Your task to perform on an android device: create a new album in the google photos Image 0: 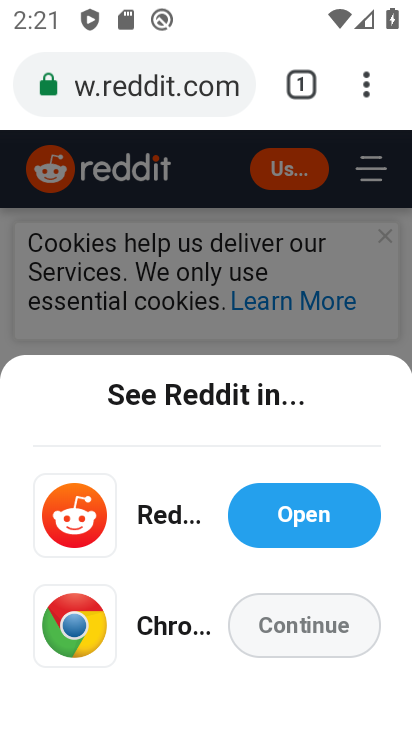
Step 0: press home button
Your task to perform on an android device: create a new album in the google photos Image 1: 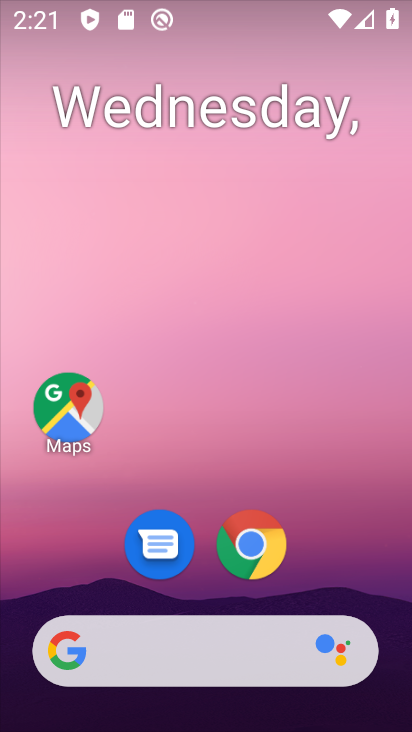
Step 1: drag from (367, 596) to (359, 196)
Your task to perform on an android device: create a new album in the google photos Image 2: 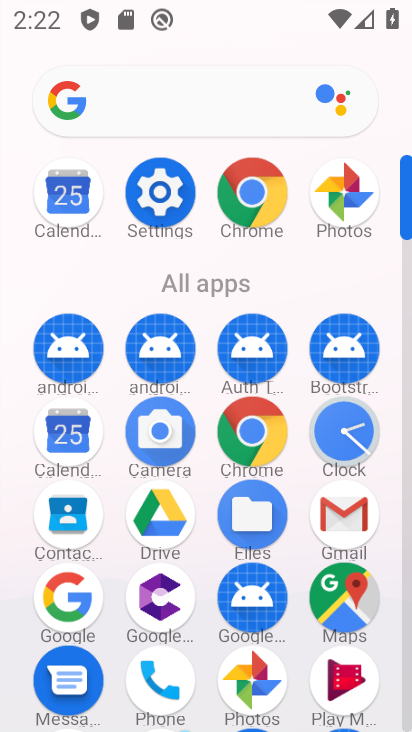
Step 2: click (259, 667)
Your task to perform on an android device: create a new album in the google photos Image 3: 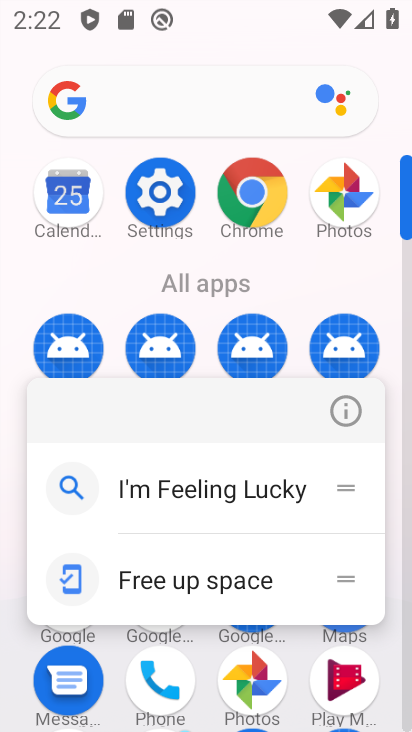
Step 3: click (254, 683)
Your task to perform on an android device: create a new album in the google photos Image 4: 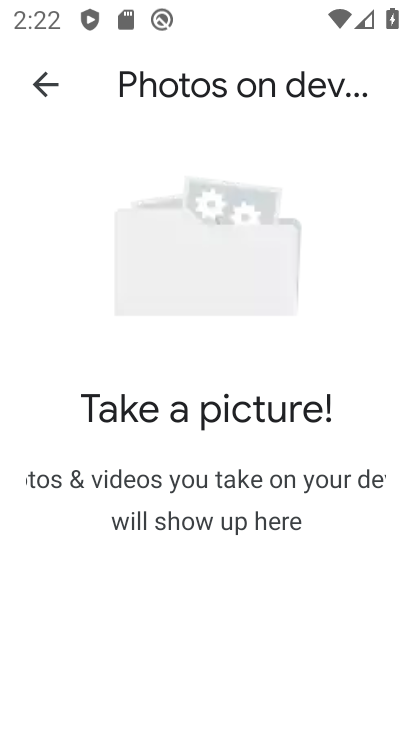
Step 4: click (67, 91)
Your task to perform on an android device: create a new album in the google photos Image 5: 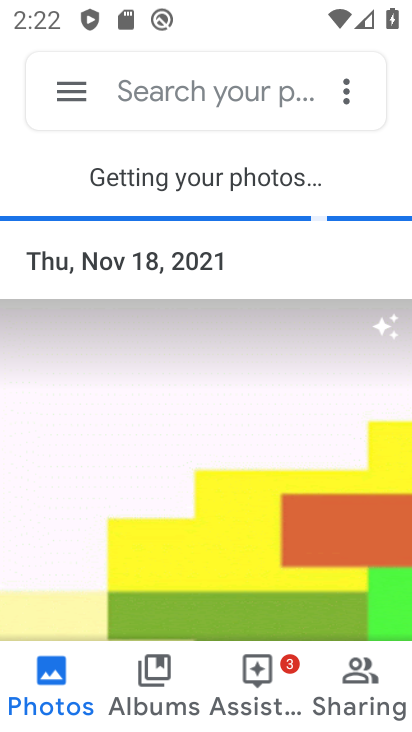
Step 5: click (116, 710)
Your task to perform on an android device: create a new album in the google photos Image 6: 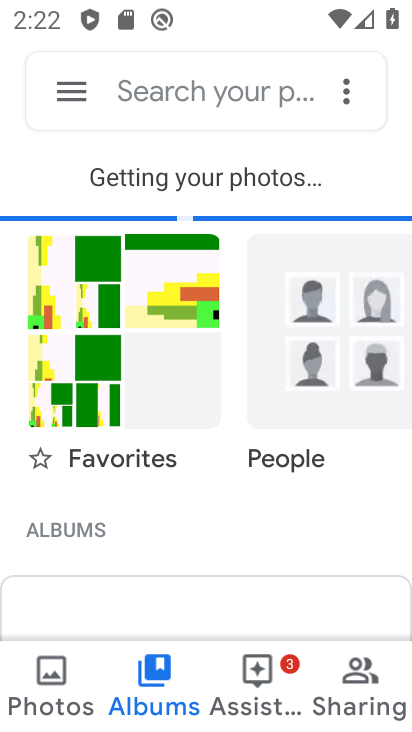
Step 6: drag from (179, 587) to (205, 284)
Your task to perform on an android device: create a new album in the google photos Image 7: 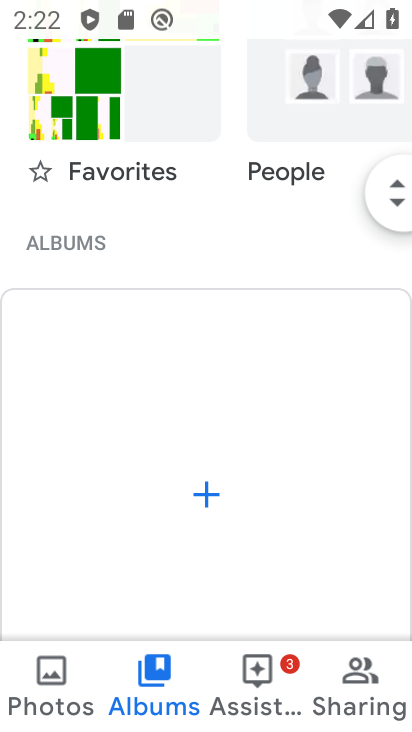
Step 7: click (211, 492)
Your task to perform on an android device: create a new album in the google photos Image 8: 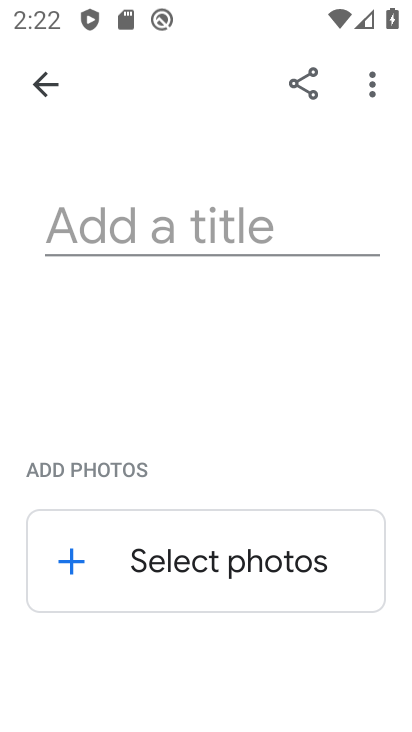
Step 8: click (170, 239)
Your task to perform on an android device: create a new album in the google photos Image 9: 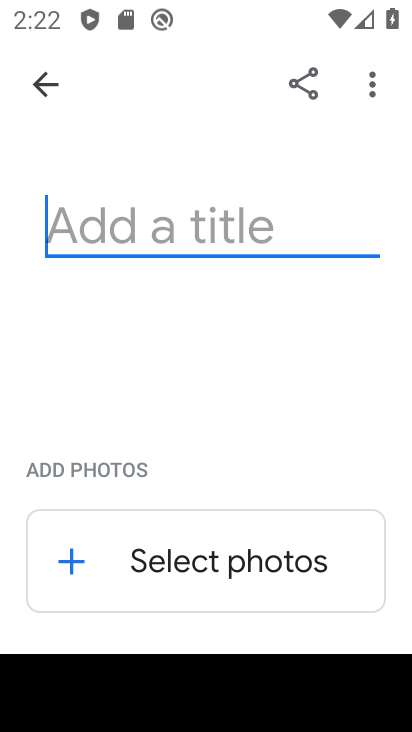
Step 9: type "isdokn"
Your task to perform on an android device: create a new album in the google photos Image 10: 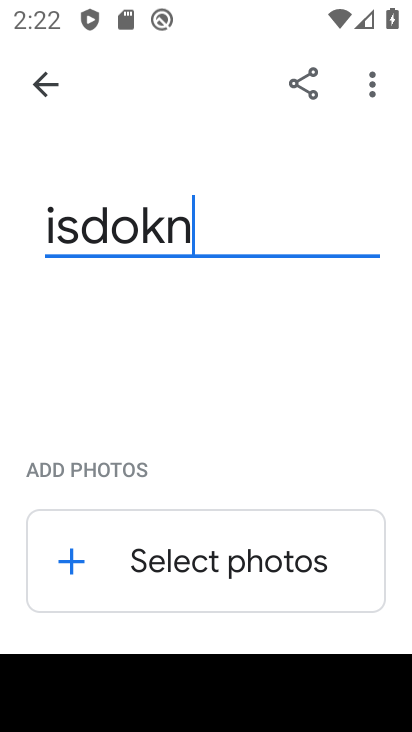
Step 10: click (68, 562)
Your task to perform on an android device: create a new album in the google photos Image 11: 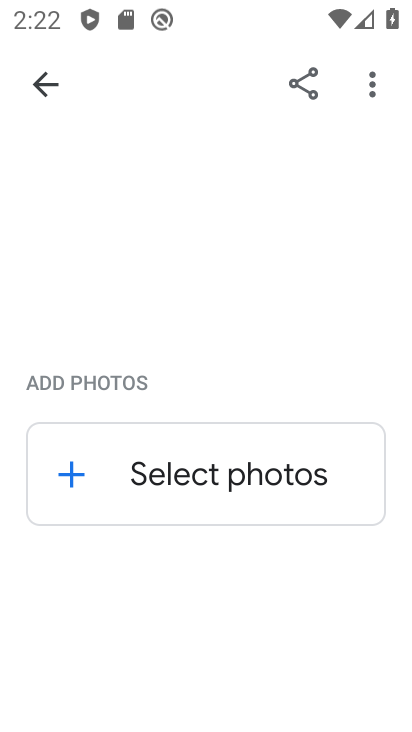
Step 11: click (66, 475)
Your task to perform on an android device: create a new album in the google photos Image 12: 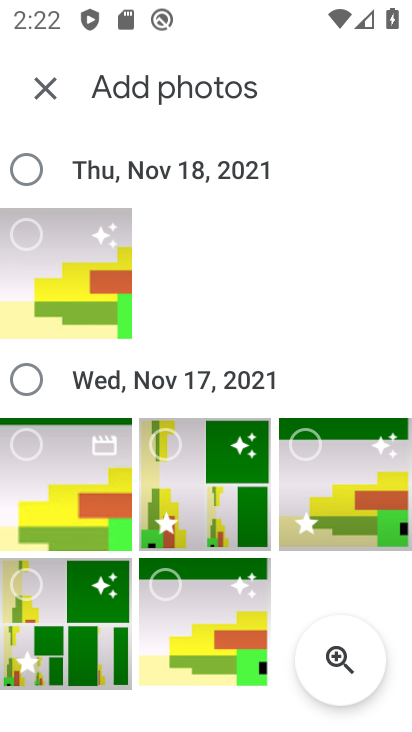
Step 12: click (31, 232)
Your task to perform on an android device: create a new album in the google photos Image 13: 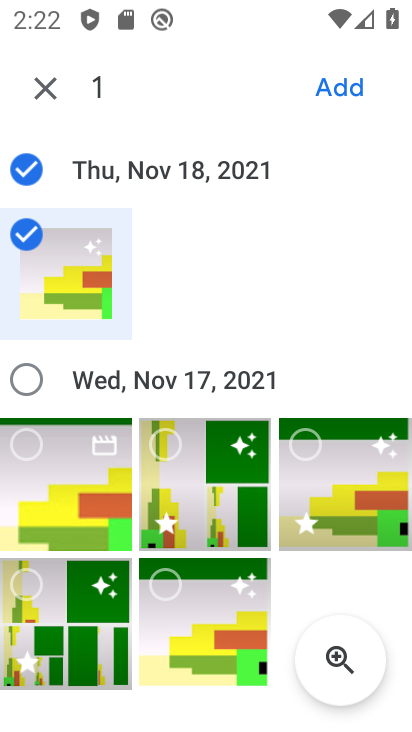
Step 13: click (333, 93)
Your task to perform on an android device: create a new album in the google photos Image 14: 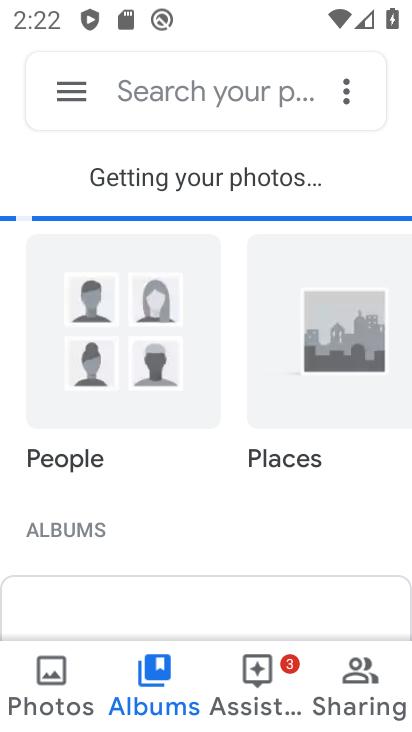
Step 14: task complete